Your task to perform on an android device: toggle location history Image 0: 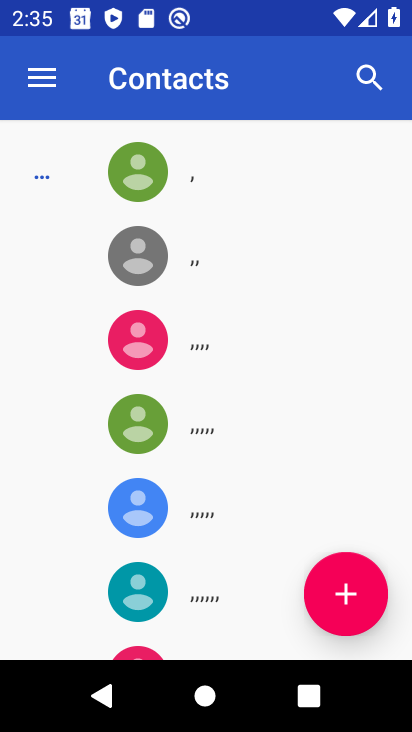
Step 0: press home button
Your task to perform on an android device: toggle location history Image 1: 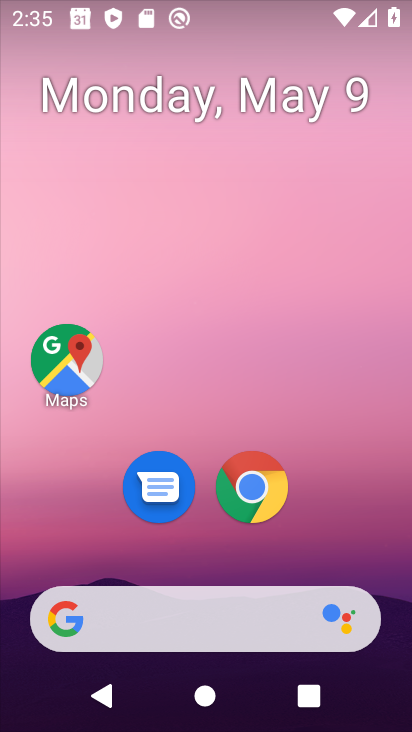
Step 1: drag from (317, 553) to (311, 95)
Your task to perform on an android device: toggle location history Image 2: 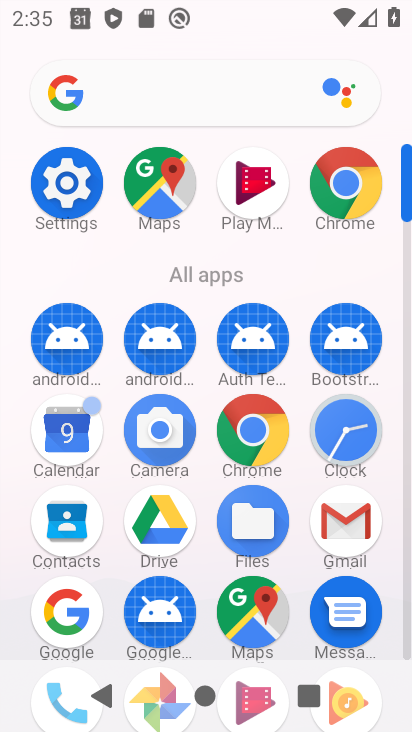
Step 2: click (68, 202)
Your task to perform on an android device: toggle location history Image 3: 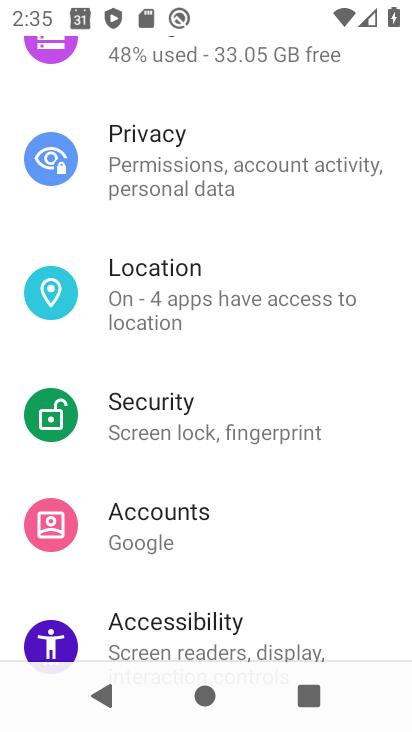
Step 3: click (195, 275)
Your task to perform on an android device: toggle location history Image 4: 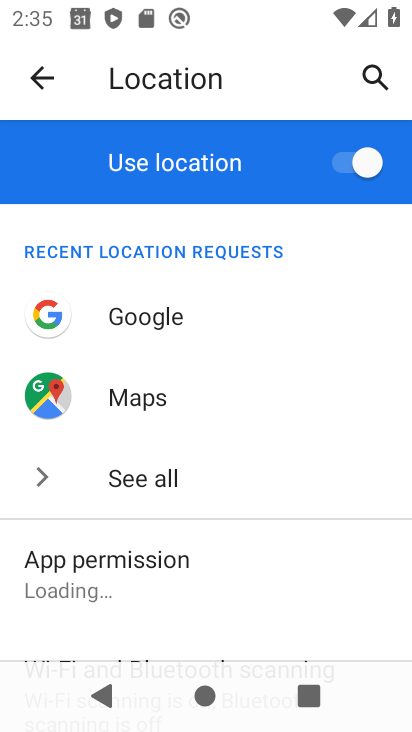
Step 4: drag from (240, 612) to (257, 406)
Your task to perform on an android device: toggle location history Image 5: 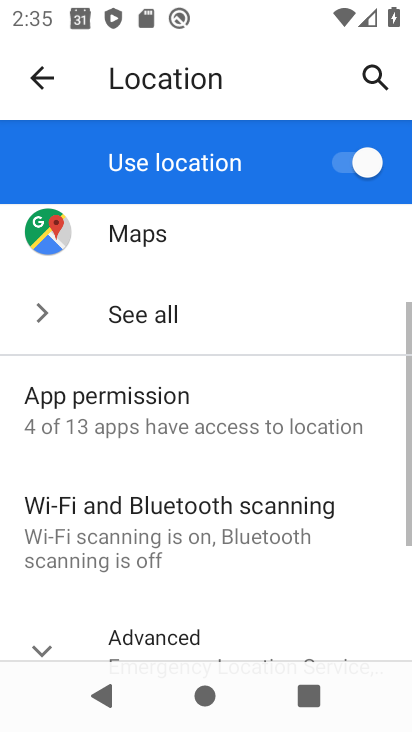
Step 5: drag from (235, 582) to (245, 425)
Your task to perform on an android device: toggle location history Image 6: 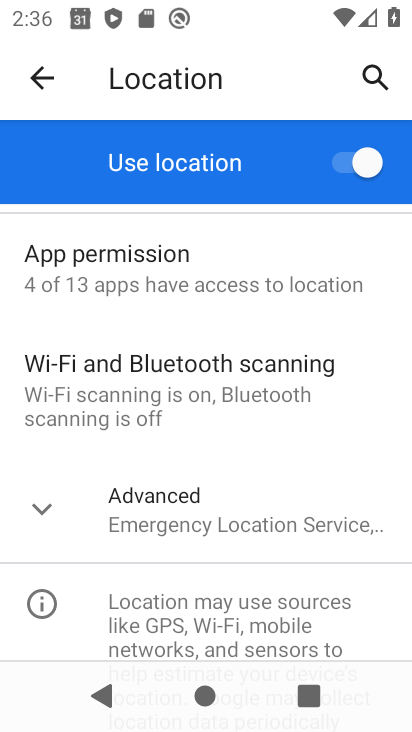
Step 6: click (233, 537)
Your task to perform on an android device: toggle location history Image 7: 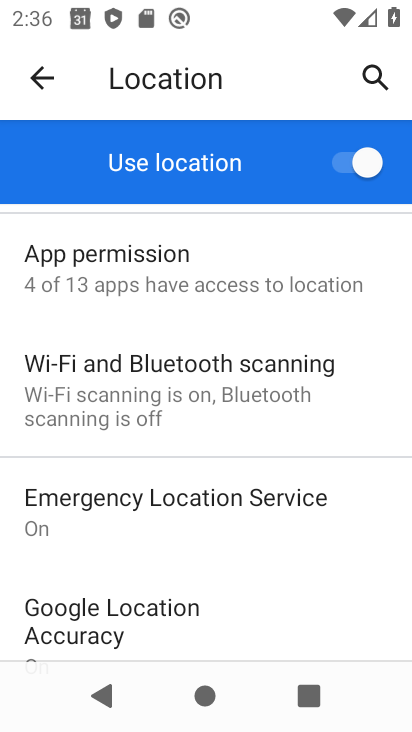
Step 7: drag from (222, 625) to (223, 484)
Your task to perform on an android device: toggle location history Image 8: 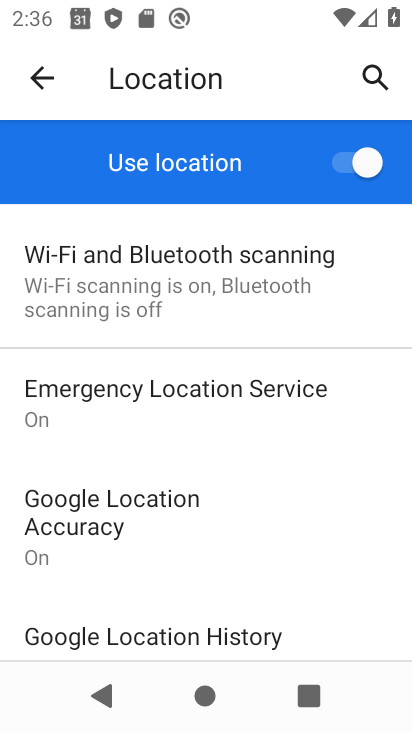
Step 8: drag from (216, 555) to (230, 416)
Your task to perform on an android device: toggle location history Image 9: 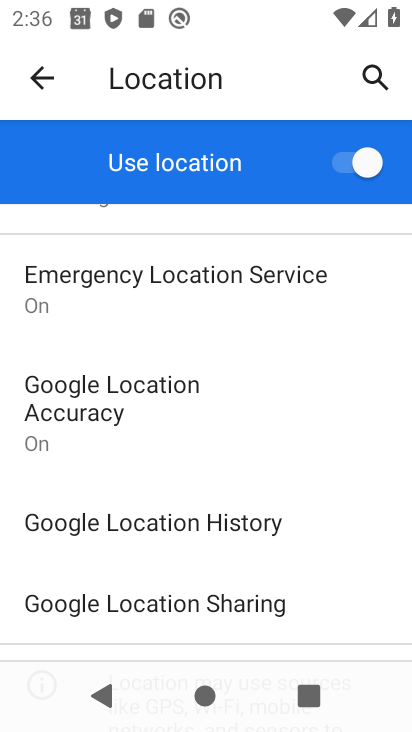
Step 9: click (159, 527)
Your task to perform on an android device: toggle location history Image 10: 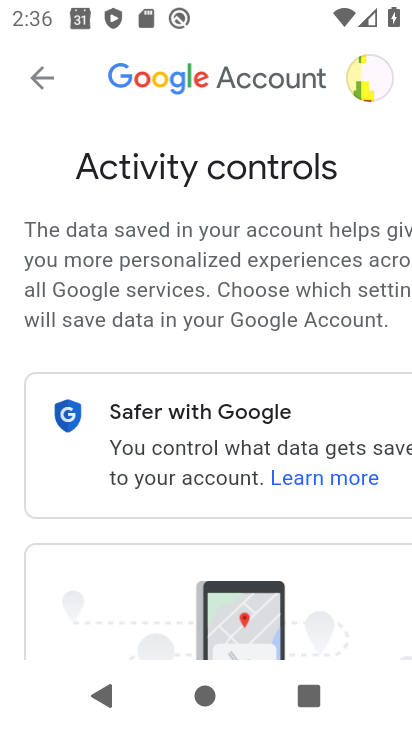
Step 10: drag from (266, 535) to (300, 225)
Your task to perform on an android device: toggle location history Image 11: 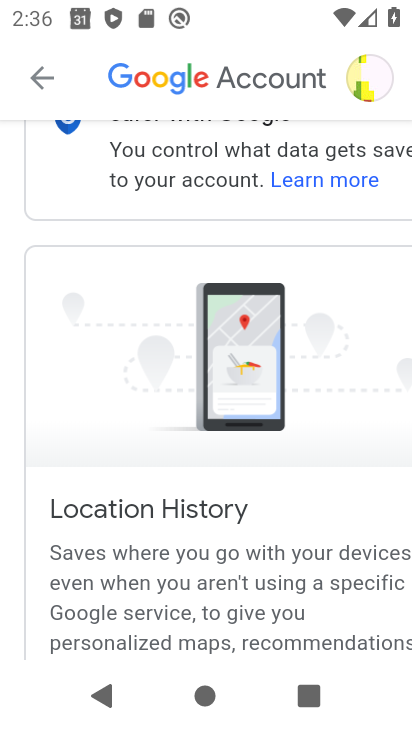
Step 11: drag from (310, 555) to (324, 302)
Your task to perform on an android device: toggle location history Image 12: 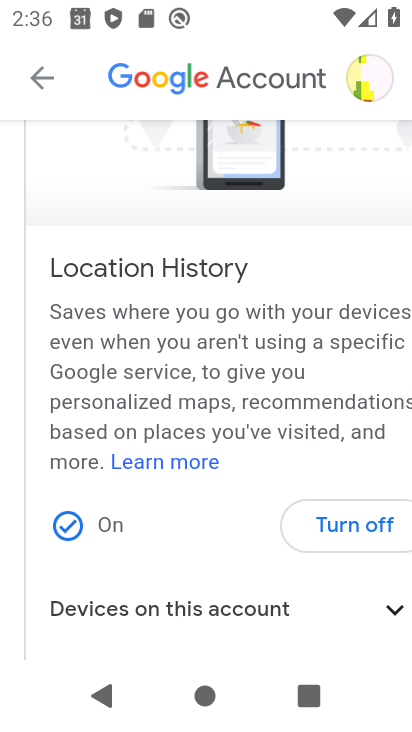
Step 12: click (351, 538)
Your task to perform on an android device: toggle location history Image 13: 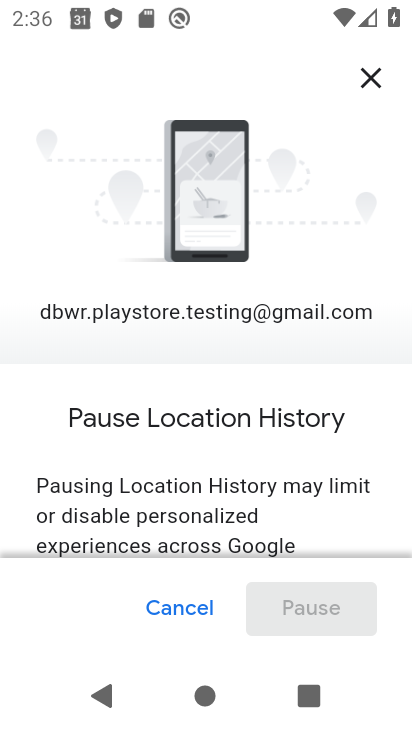
Step 13: drag from (310, 532) to (320, 250)
Your task to perform on an android device: toggle location history Image 14: 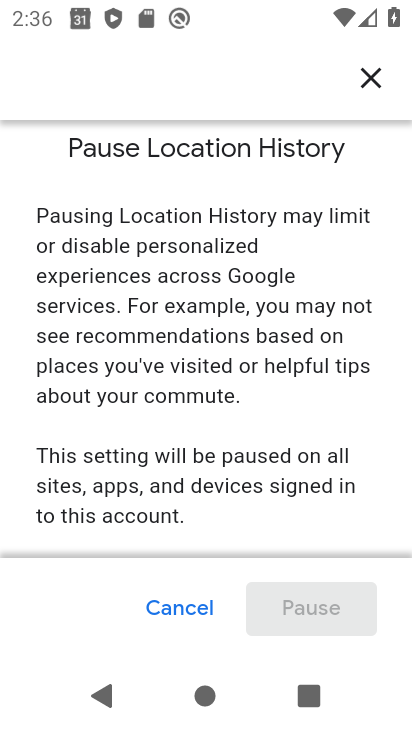
Step 14: drag from (309, 517) to (316, 254)
Your task to perform on an android device: toggle location history Image 15: 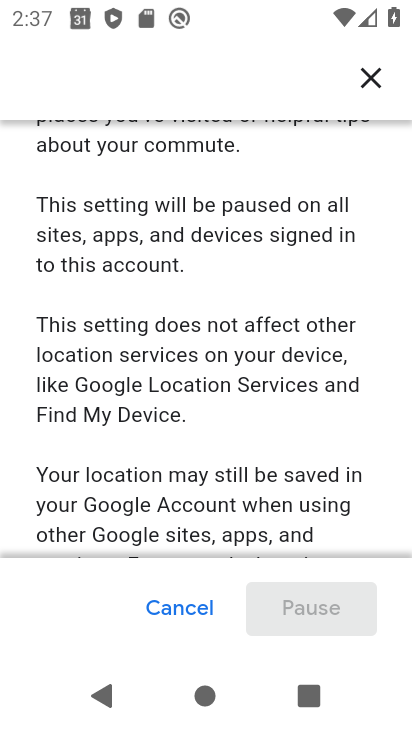
Step 15: drag from (309, 477) to (327, 236)
Your task to perform on an android device: toggle location history Image 16: 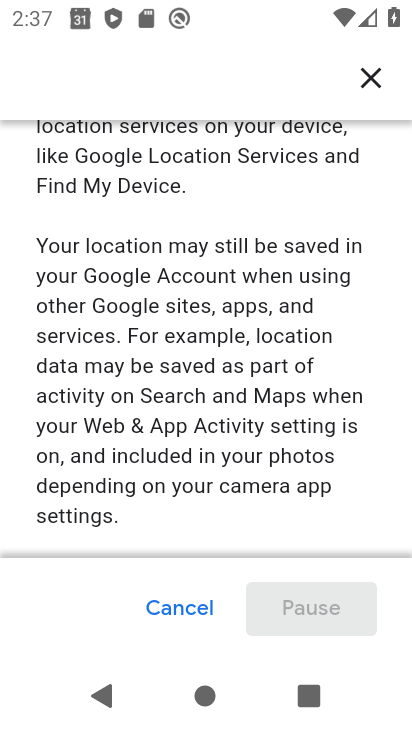
Step 16: drag from (319, 524) to (330, 314)
Your task to perform on an android device: toggle location history Image 17: 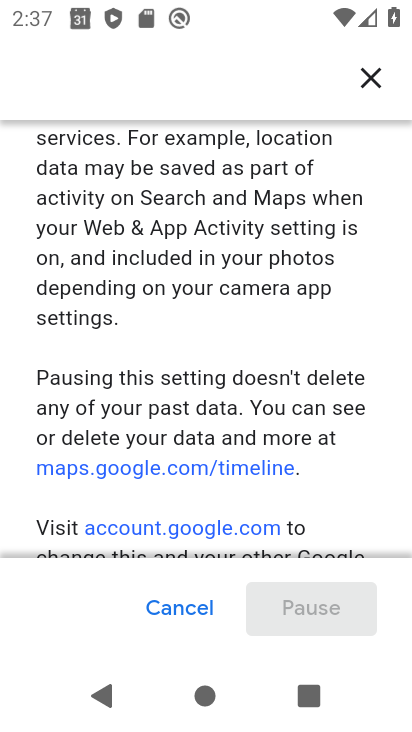
Step 17: drag from (363, 515) to (368, 257)
Your task to perform on an android device: toggle location history Image 18: 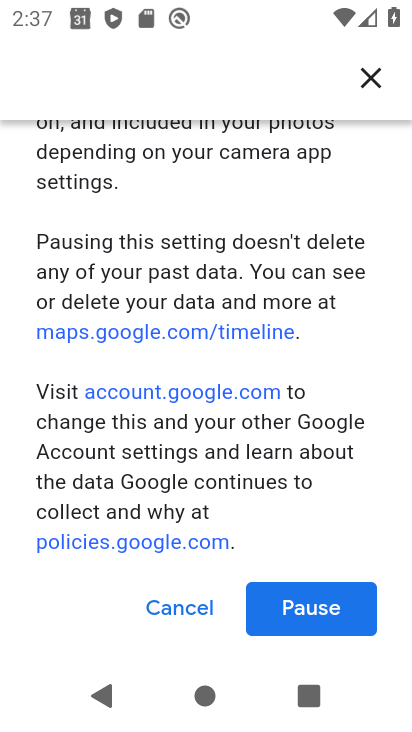
Step 18: click (318, 613)
Your task to perform on an android device: toggle location history Image 19: 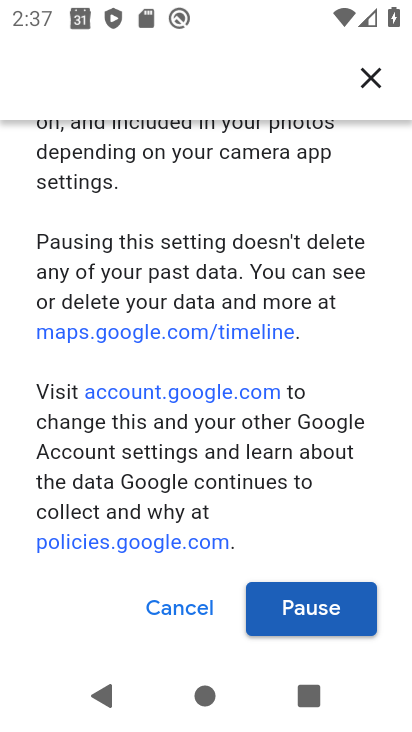
Step 19: click (355, 615)
Your task to perform on an android device: toggle location history Image 20: 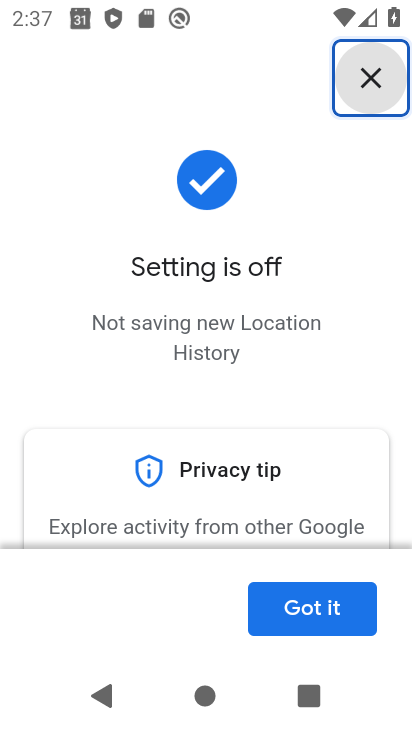
Step 20: click (366, 615)
Your task to perform on an android device: toggle location history Image 21: 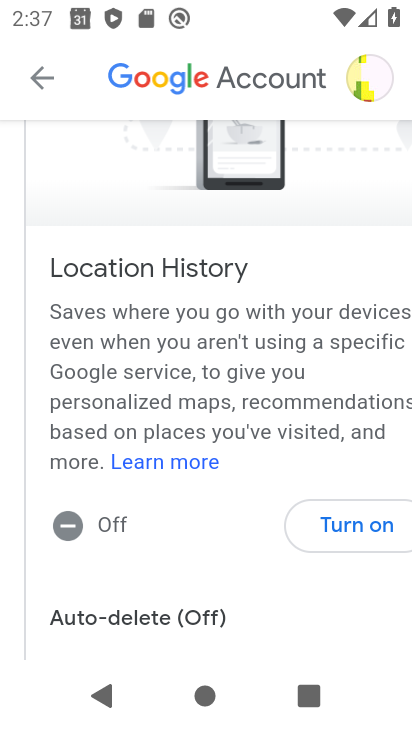
Step 21: task complete